Your task to perform on an android device: move a message to another label in the gmail app Image 0: 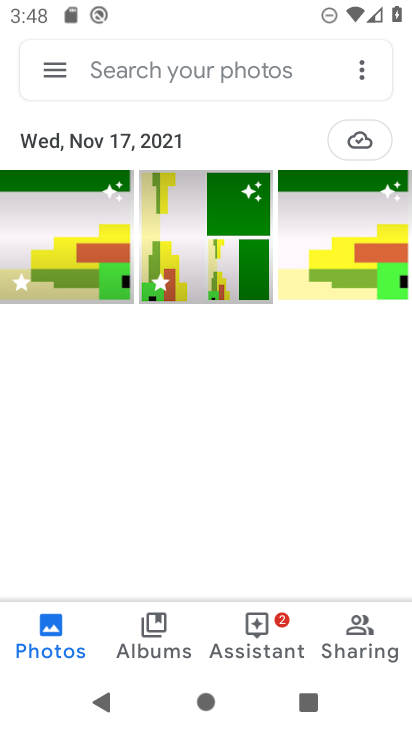
Step 0: press home button
Your task to perform on an android device: move a message to another label in the gmail app Image 1: 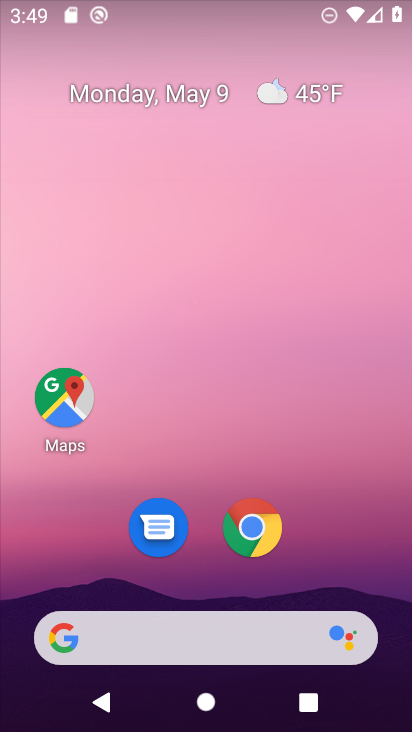
Step 1: drag from (367, 588) to (277, 105)
Your task to perform on an android device: move a message to another label in the gmail app Image 2: 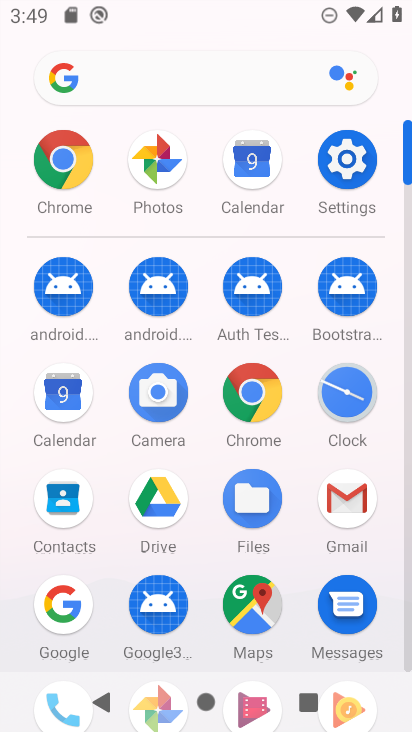
Step 2: click (356, 511)
Your task to perform on an android device: move a message to another label in the gmail app Image 3: 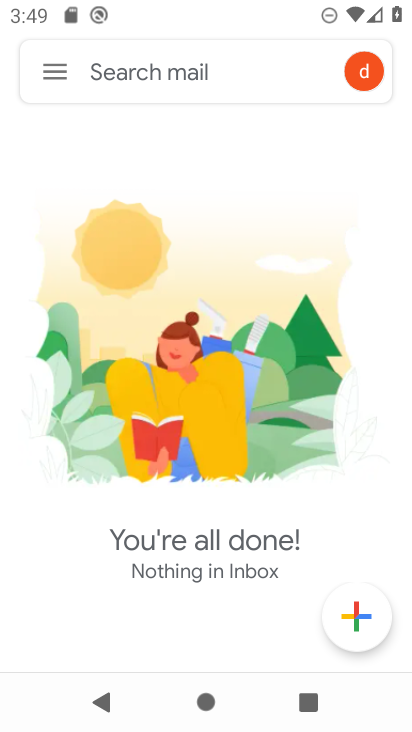
Step 3: task complete